Your task to perform on an android device: Clear the shopping cart on amazon.com. Add jbl charge 4 to the cart on amazon.com, then select checkout. Image 0: 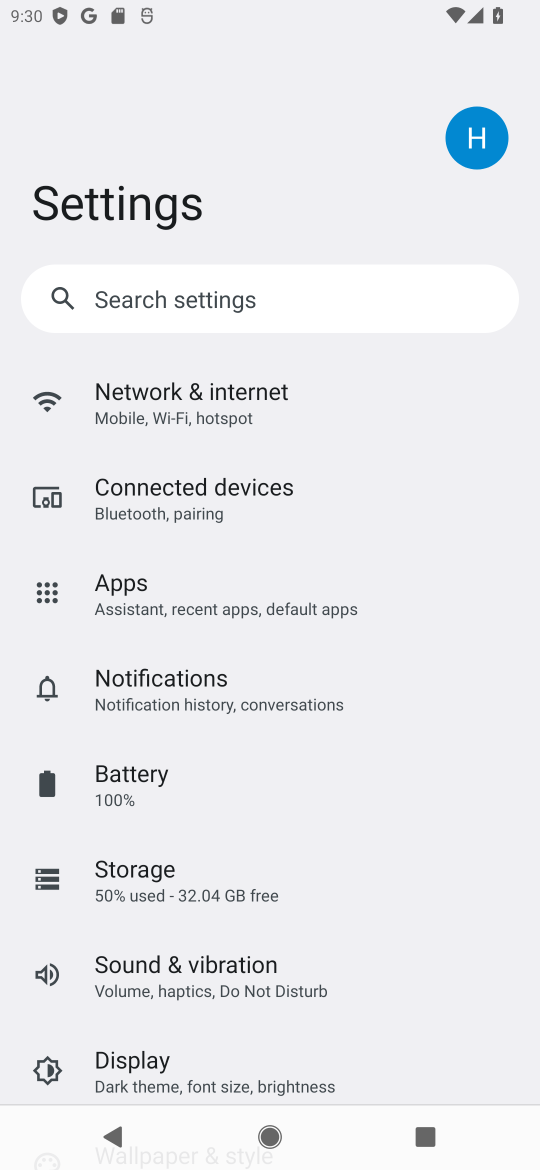
Step 0: press home button
Your task to perform on an android device: Clear the shopping cart on amazon.com. Add jbl charge 4 to the cart on amazon.com, then select checkout. Image 1: 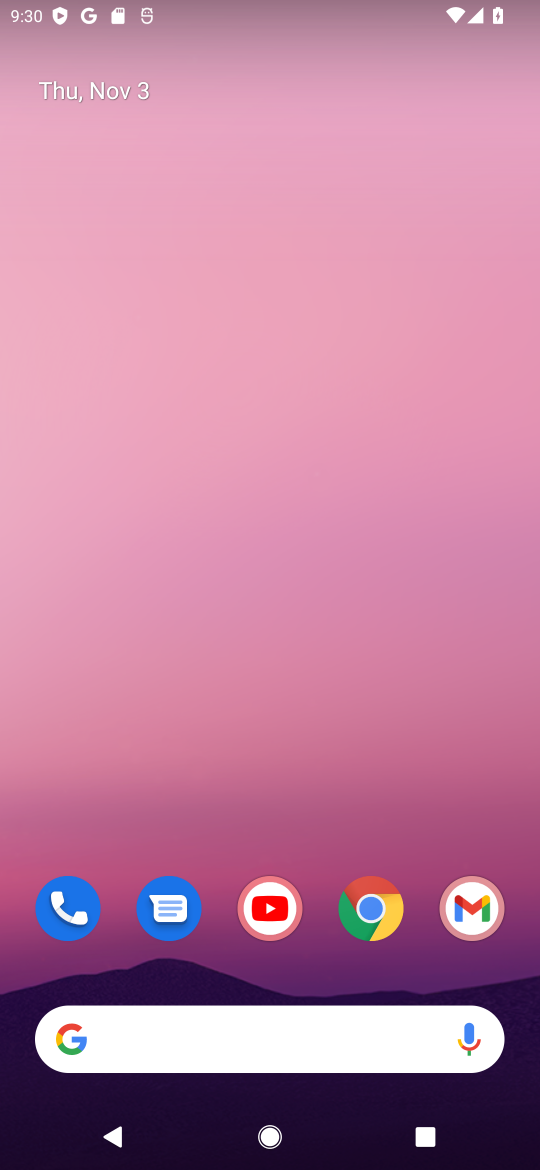
Step 1: click (373, 910)
Your task to perform on an android device: Clear the shopping cart on amazon.com. Add jbl charge 4 to the cart on amazon.com, then select checkout. Image 2: 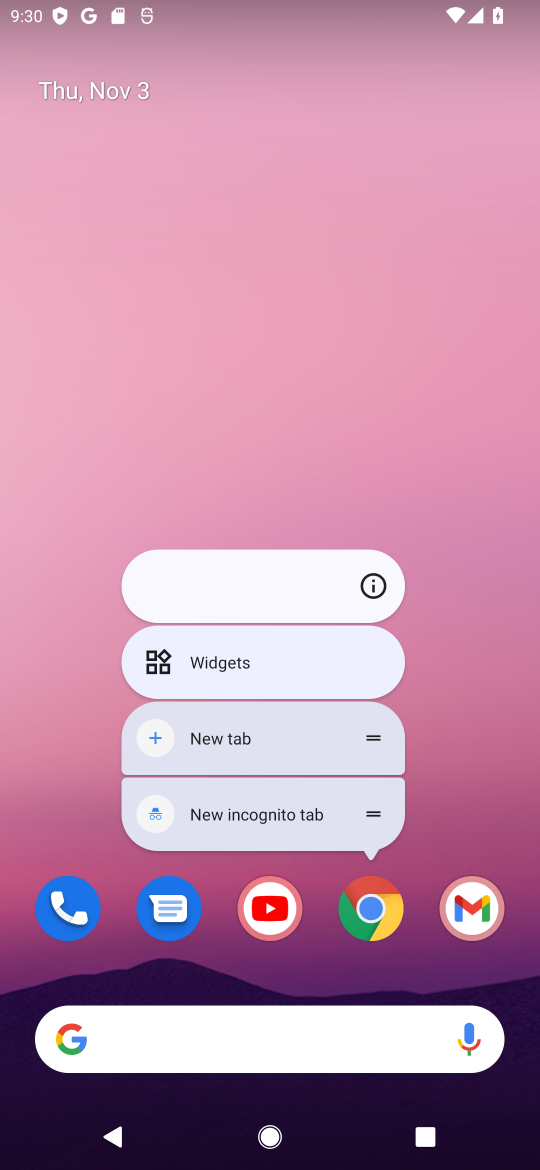
Step 2: click (373, 910)
Your task to perform on an android device: Clear the shopping cart on amazon.com. Add jbl charge 4 to the cart on amazon.com, then select checkout. Image 3: 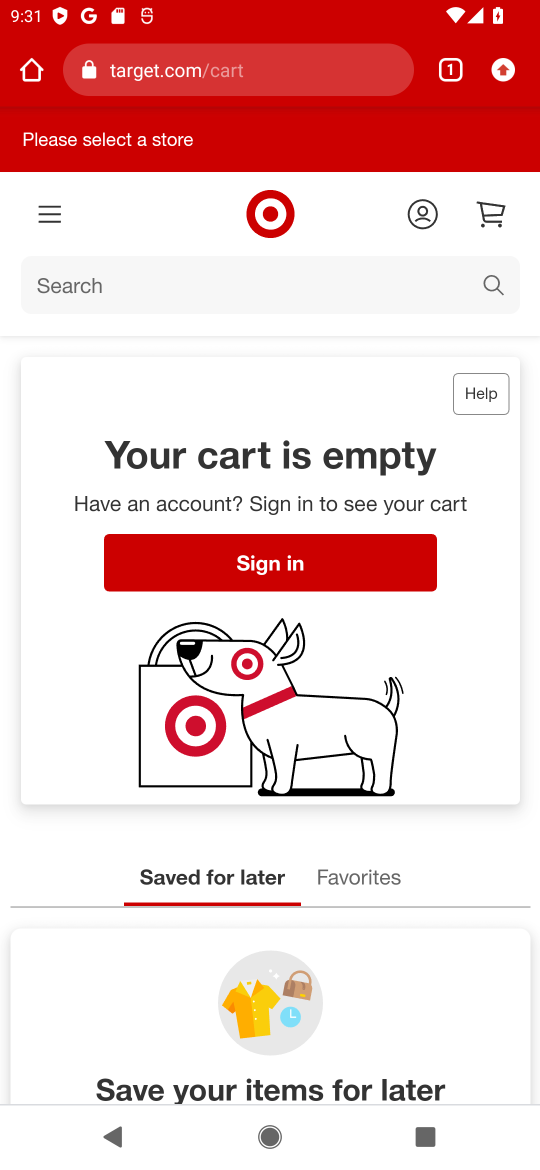
Step 3: click (20, 57)
Your task to perform on an android device: Clear the shopping cart on amazon.com. Add jbl charge 4 to the cart on amazon.com, then select checkout. Image 4: 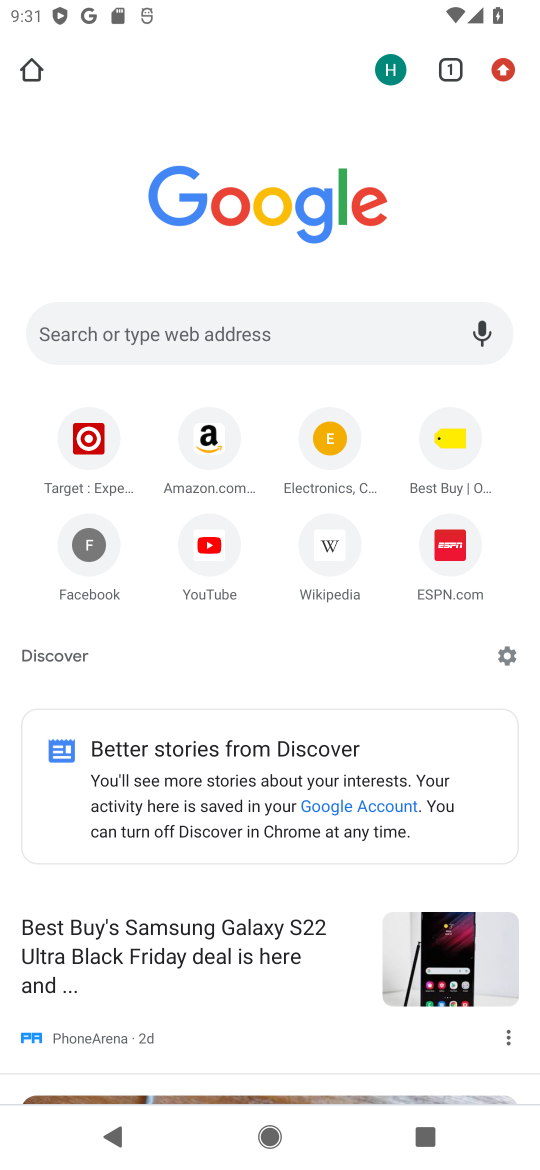
Step 4: click (213, 429)
Your task to perform on an android device: Clear the shopping cart on amazon.com. Add jbl charge 4 to the cart on amazon.com, then select checkout. Image 5: 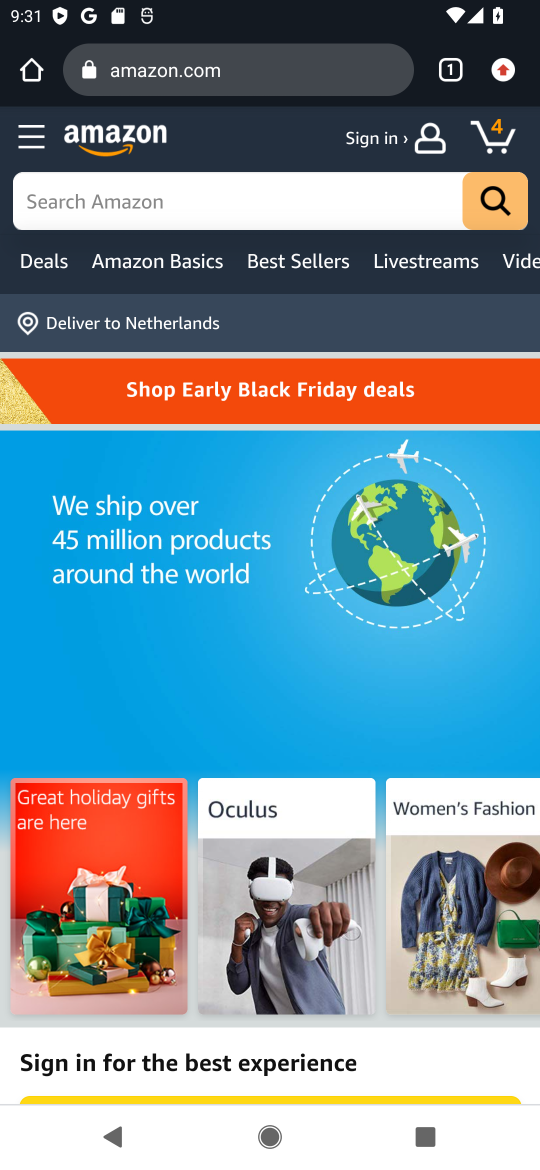
Step 5: click (495, 138)
Your task to perform on an android device: Clear the shopping cart on amazon.com. Add jbl charge 4 to the cart on amazon.com, then select checkout. Image 6: 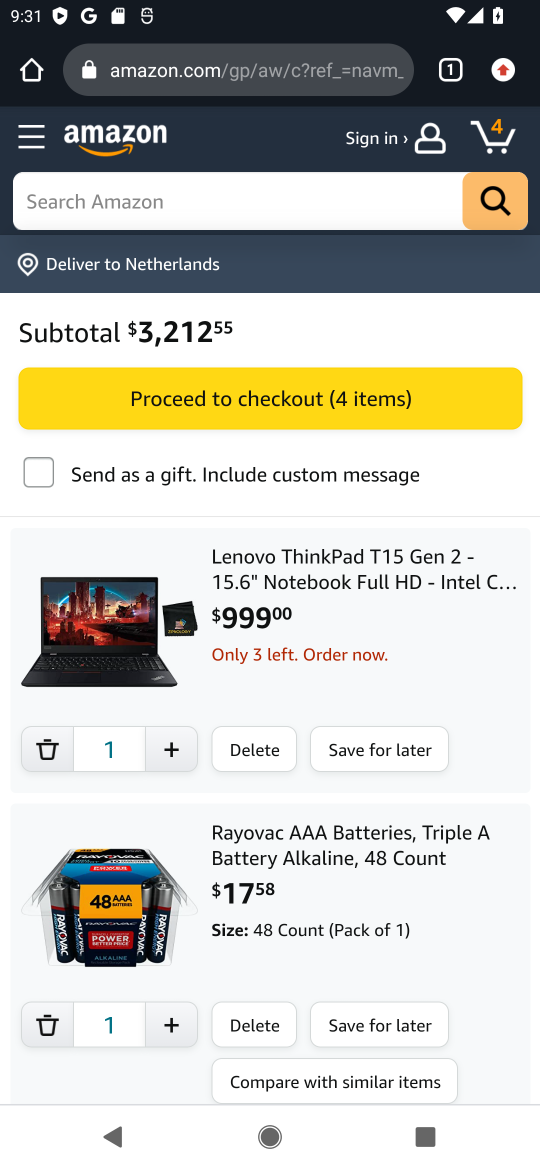
Step 6: click (244, 746)
Your task to perform on an android device: Clear the shopping cart on amazon.com. Add jbl charge 4 to the cart on amazon.com, then select checkout. Image 7: 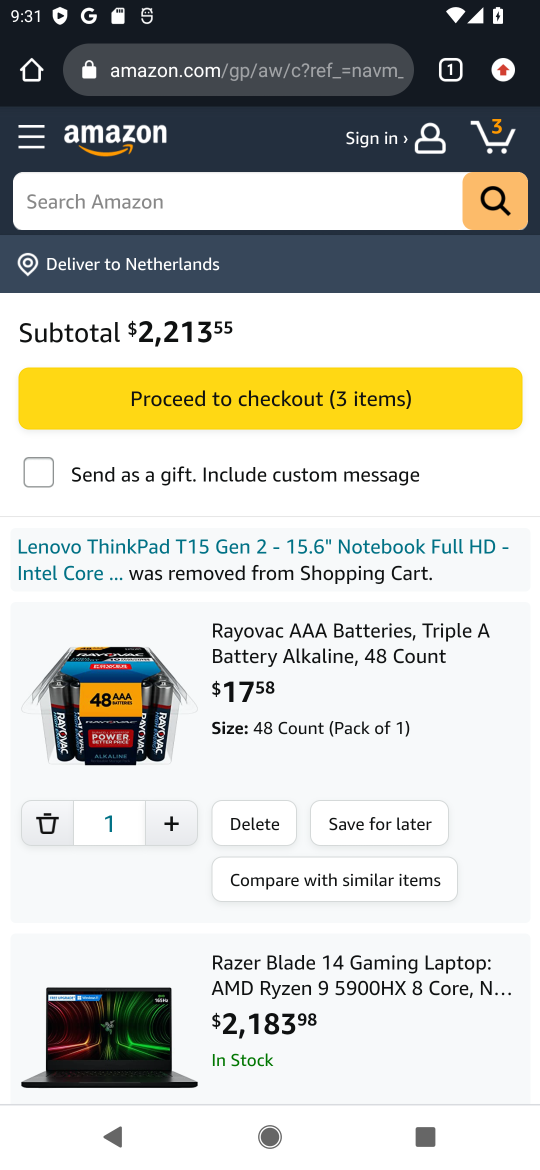
Step 7: click (249, 819)
Your task to perform on an android device: Clear the shopping cart on amazon.com. Add jbl charge 4 to the cart on amazon.com, then select checkout. Image 8: 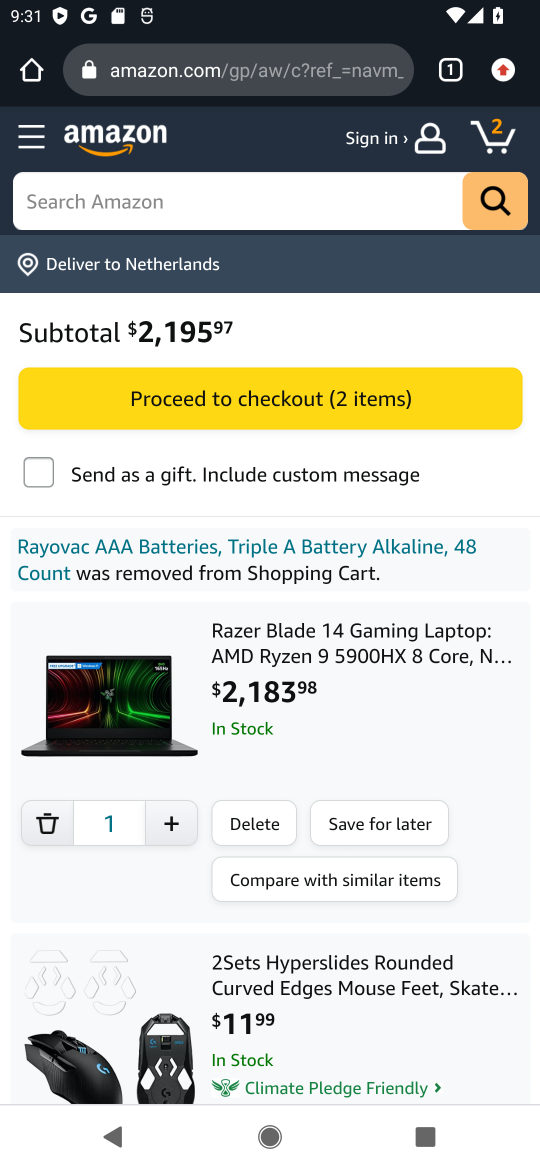
Step 8: click (256, 821)
Your task to perform on an android device: Clear the shopping cart on amazon.com. Add jbl charge 4 to the cart on amazon.com, then select checkout. Image 9: 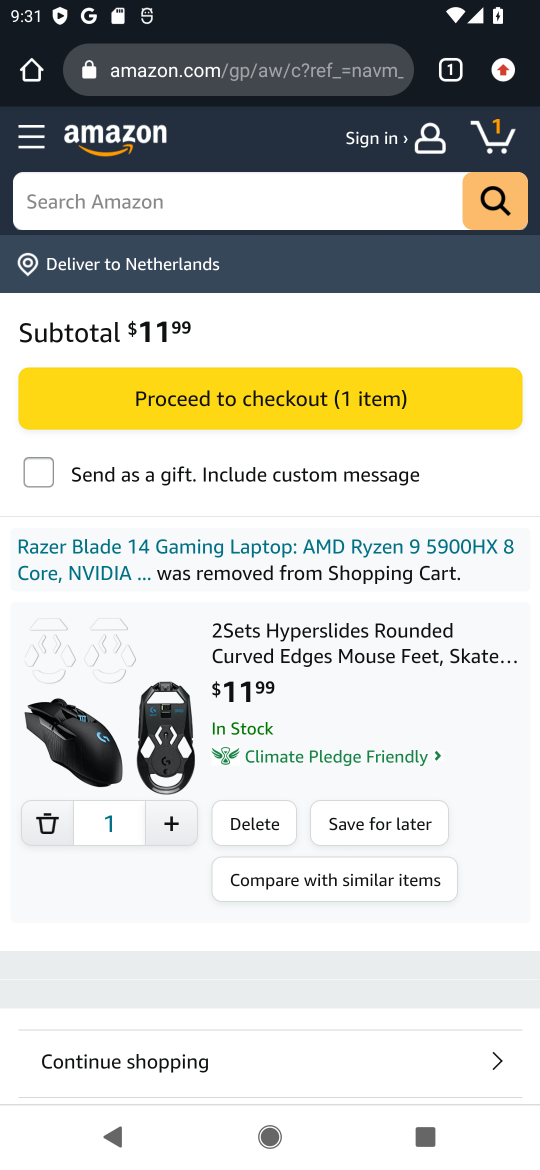
Step 9: click (256, 819)
Your task to perform on an android device: Clear the shopping cart on amazon.com. Add jbl charge 4 to the cart on amazon.com, then select checkout. Image 10: 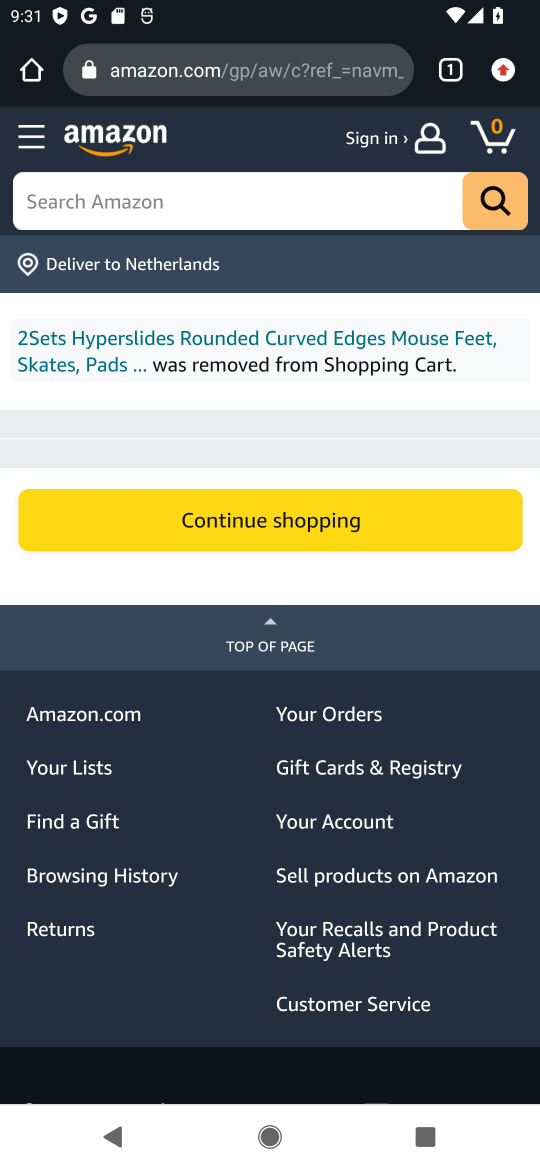
Step 10: click (322, 217)
Your task to perform on an android device: Clear the shopping cart on amazon.com. Add jbl charge 4 to the cart on amazon.com, then select checkout. Image 11: 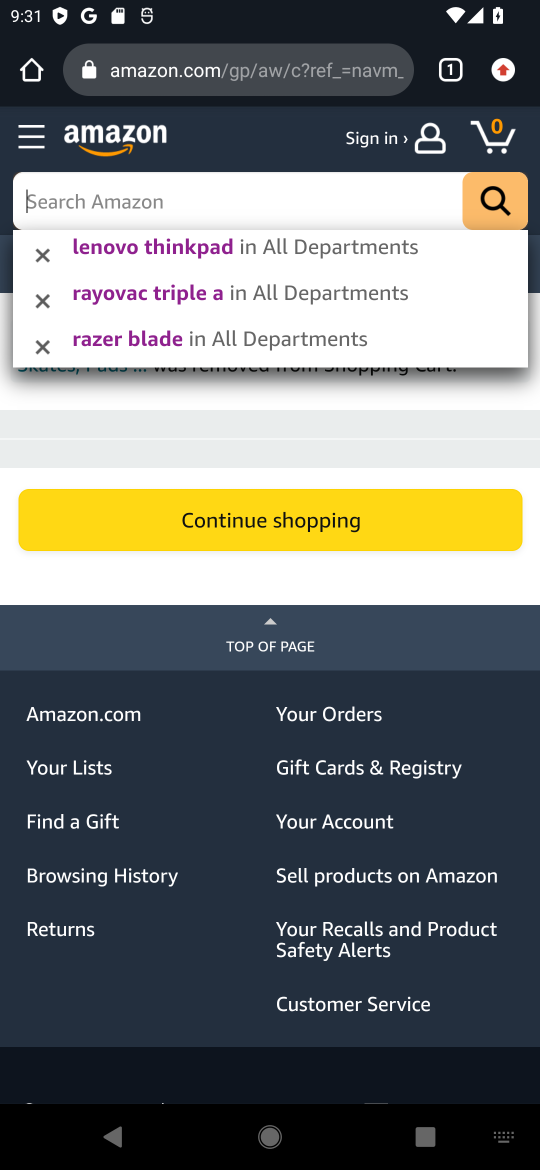
Step 11: type "jbl charge 4 "
Your task to perform on an android device: Clear the shopping cart on amazon.com. Add jbl charge 4 to the cart on amazon.com, then select checkout. Image 12: 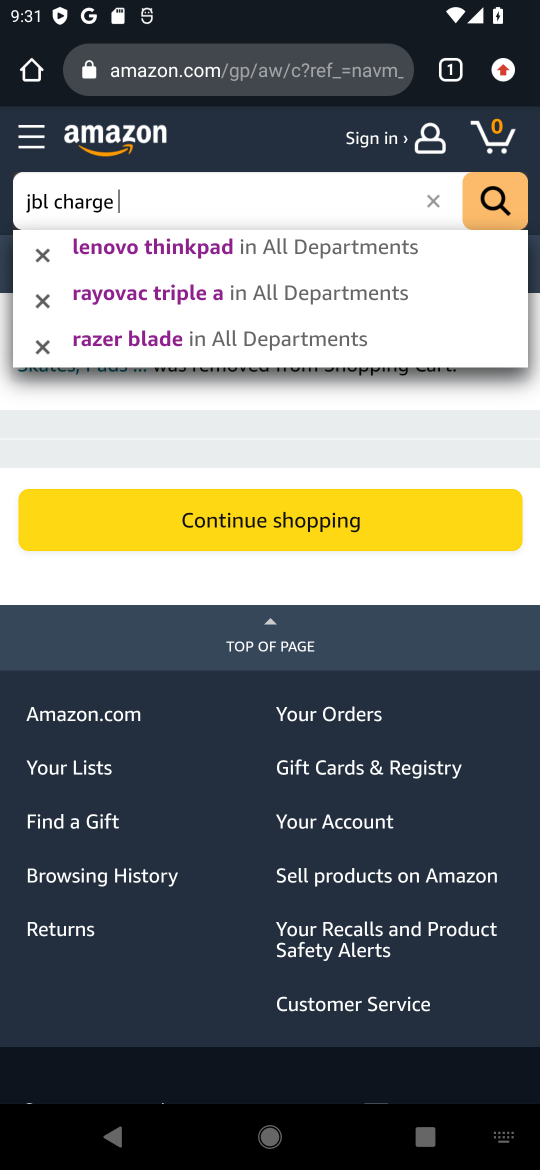
Step 12: press enter
Your task to perform on an android device: Clear the shopping cart on amazon.com. Add jbl charge 4 to the cart on amazon.com, then select checkout. Image 13: 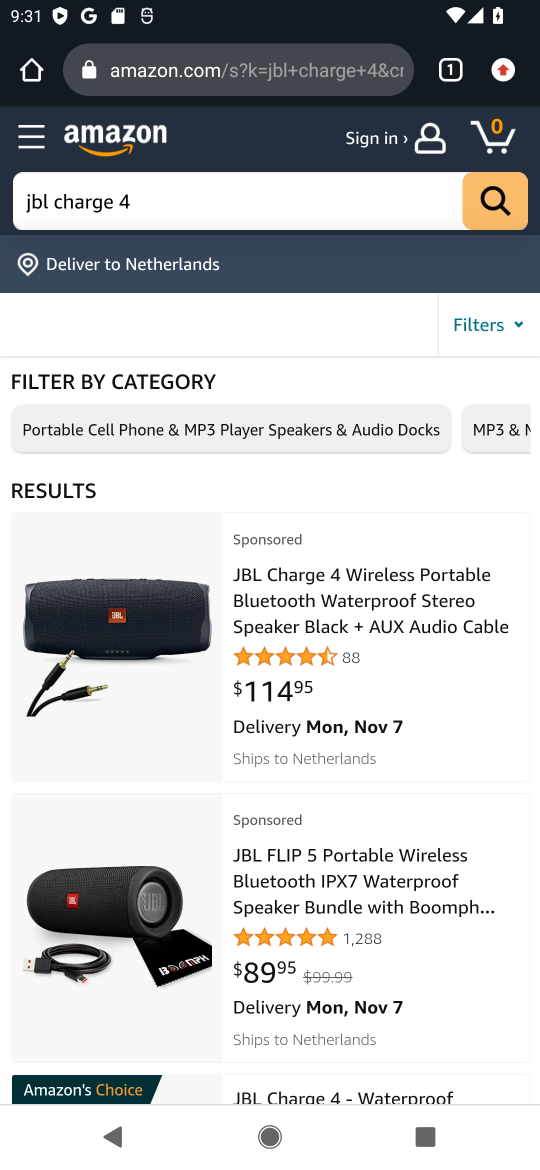
Step 13: click (129, 611)
Your task to perform on an android device: Clear the shopping cart on amazon.com. Add jbl charge 4 to the cart on amazon.com, then select checkout. Image 14: 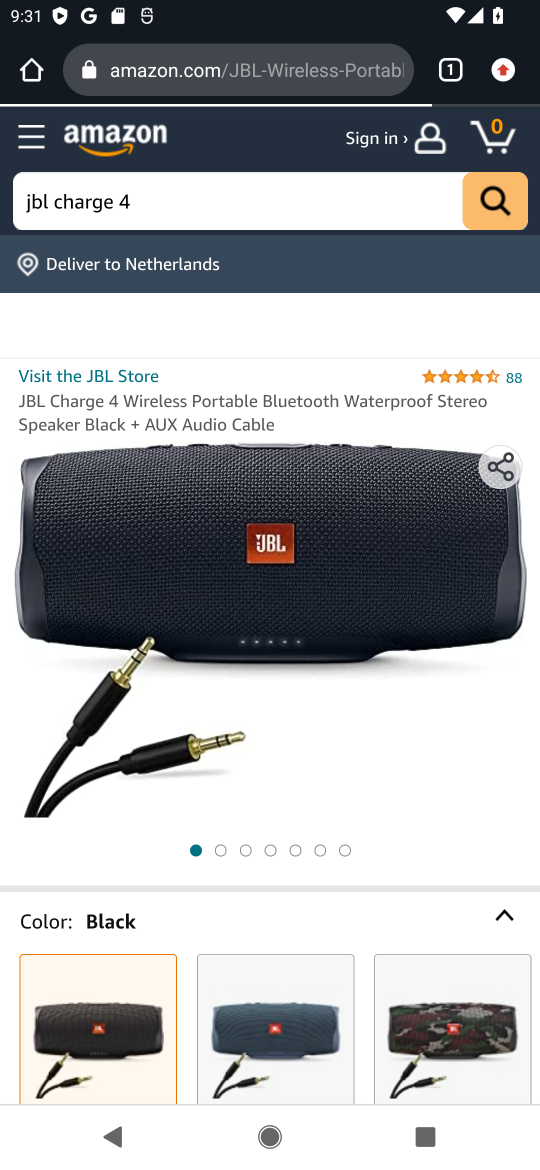
Step 14: drag from (260, 803) to (250, 294)
Your task to perform on an android device: Clear the shopping cart on amazon.com. Add jbl charge 4 to the cart on amazon.com, then select checkout. Image 15: 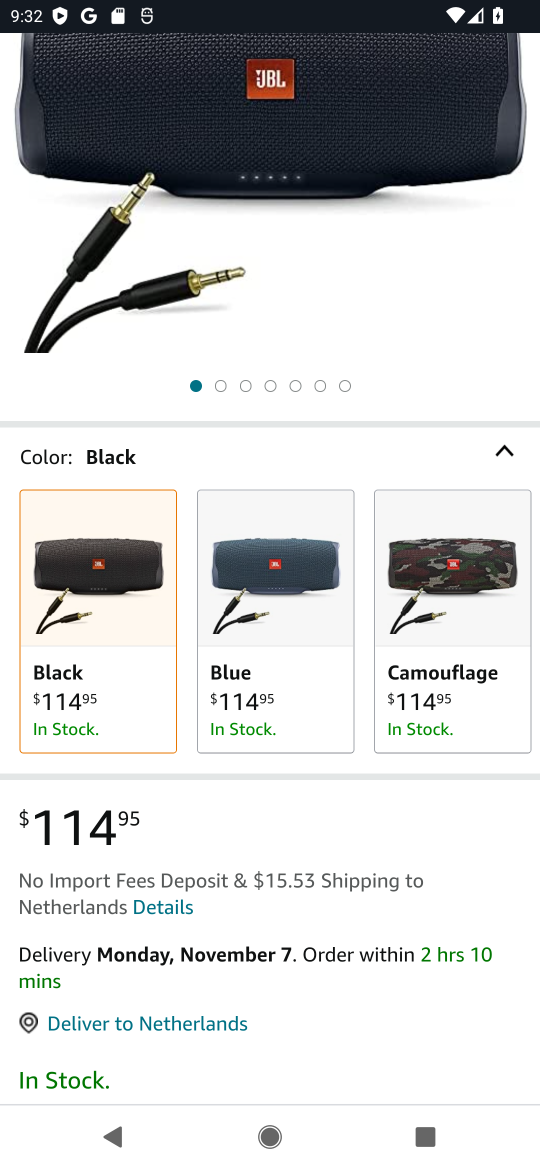
Step 15: drag from (323, 802) to (365, 335)
Your task to perform on an android device: Clear the shopping cart on amazon.com. Add jbl charge 4 to the cart on amazon.com, then select checkout. Image 16: 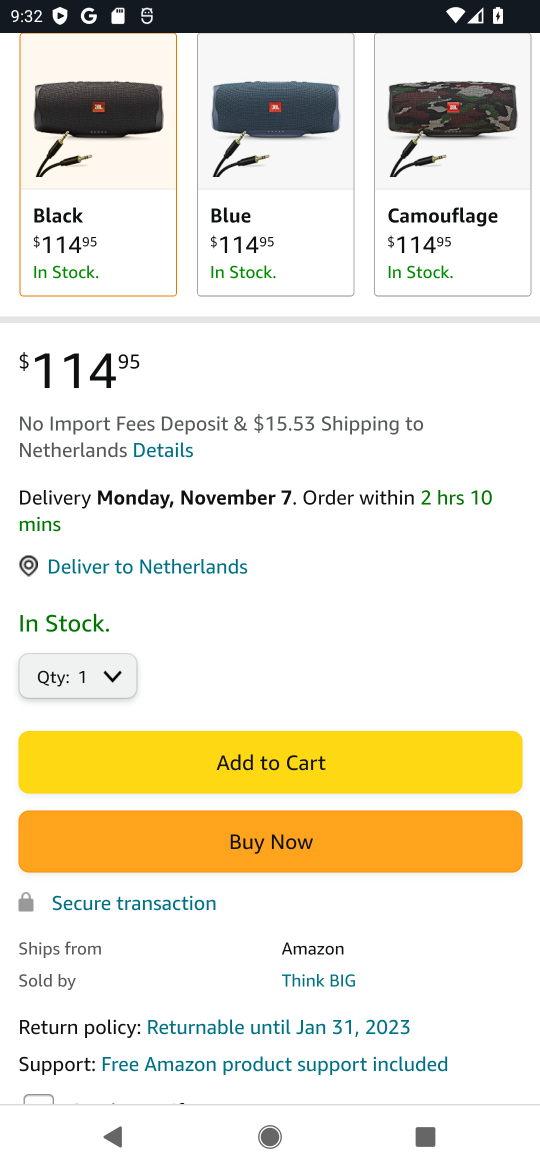
Step 16: click (380, 760)
Your task to perform on an android device: Clear the shopping cart on amazon.com. Add jbl charge 4 to the cart on amazon.com, then select checkout. Image 17: 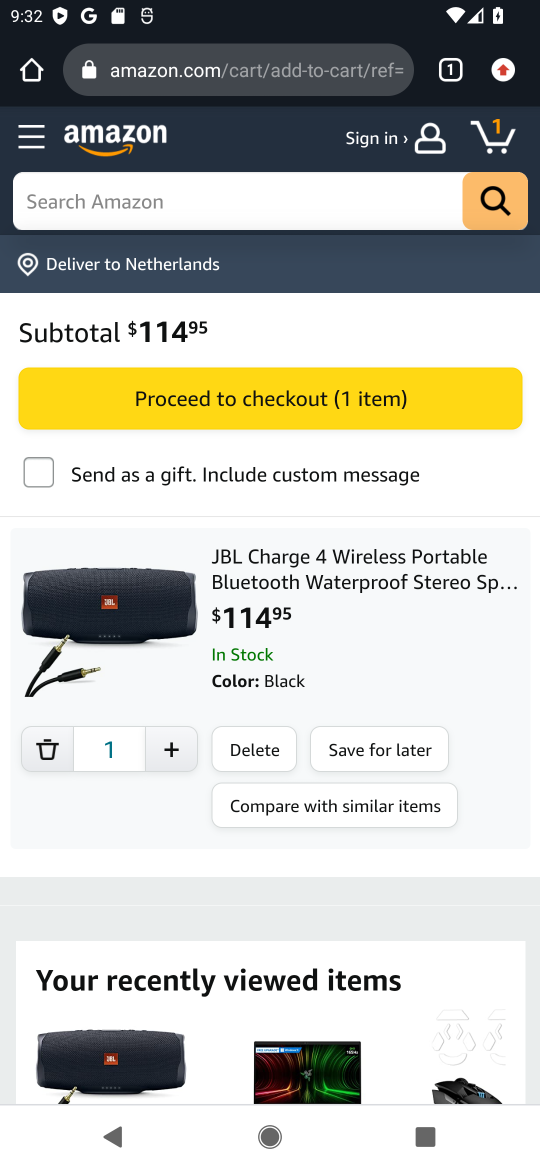
Step 17: click (267, 395)
Your task to perform on an android device: Clear the shopping cart on amazon.com. Add jbl charge 4 to the cart on amazon.com, then select checkout. Image 18: 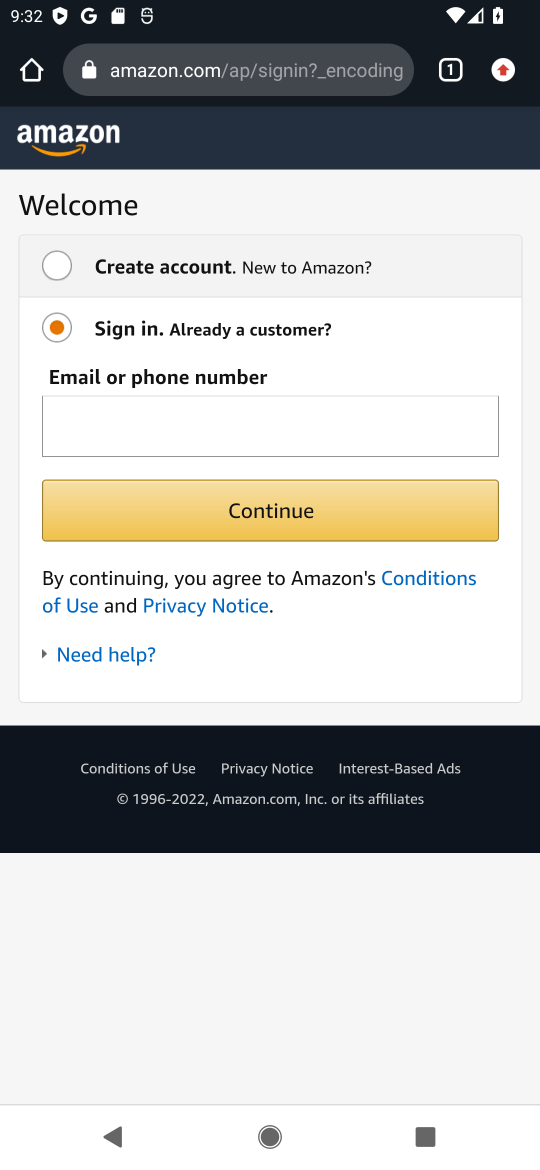
Step 18: task complete